Your task to perform on an android device: search for starred emails in the gmail app Image 0: 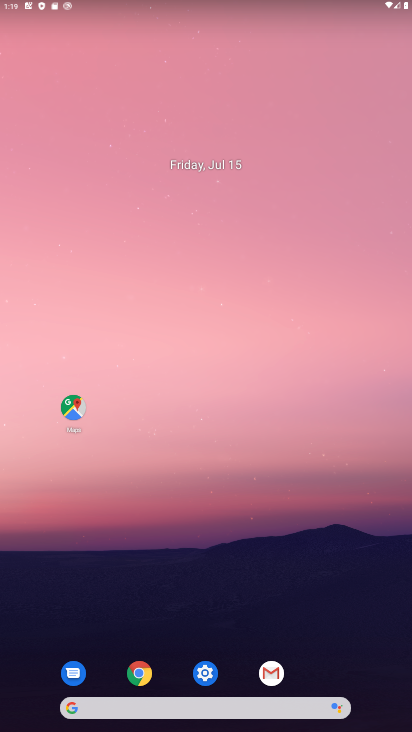
Step 0: press home button
Your task to perform on an android device: search for starred emails in the gmail app Image 1: 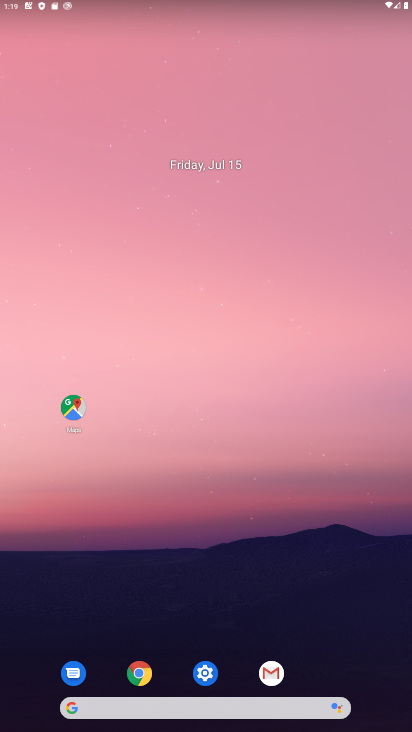
Step 1: click (275, 672)
Your task to perform on an android device: search for starred emails in the gmail app Image 2: 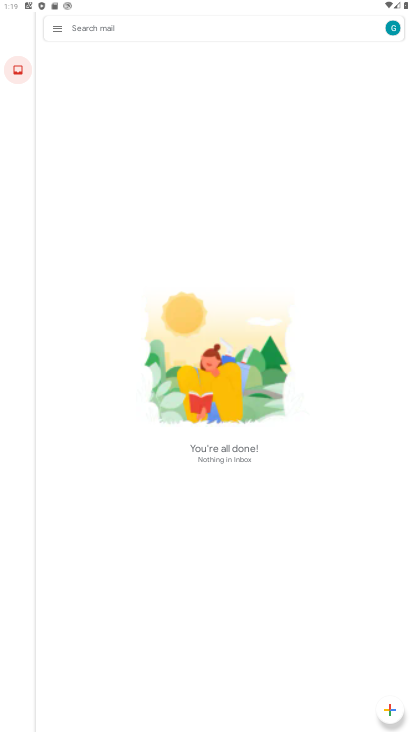
Step 2: click (54, 34)
Your task to perform on an android device: search for starred emails in the gmail app Image 3: 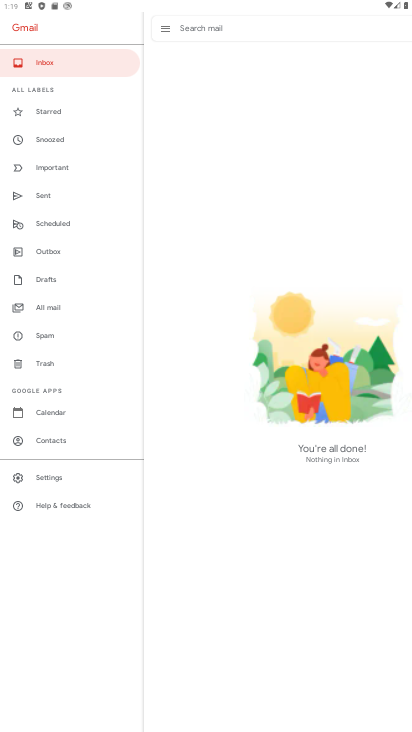
Step 3: click (58, 108)
Your task to perform on an android device: search for starred emails in the gmail app Image 4: 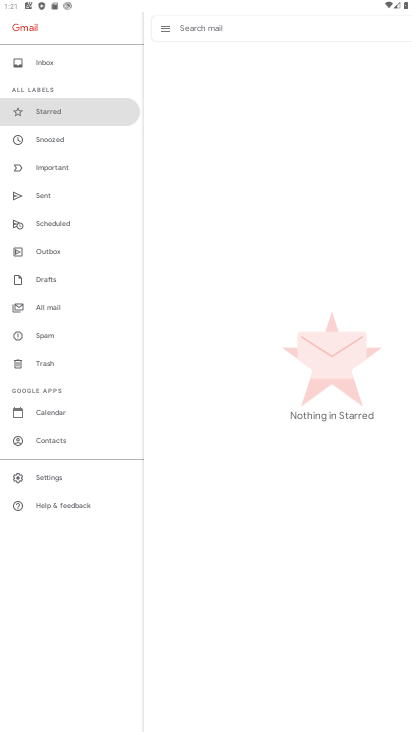
Step 4: task complete